Your task to perform on an android device: Open settings Image 0: 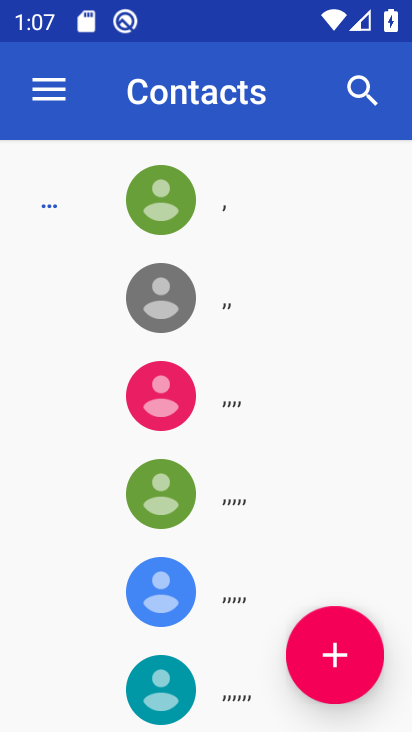
Step 0: press home button
Your task to perform on an android device: Open settings Image 1: 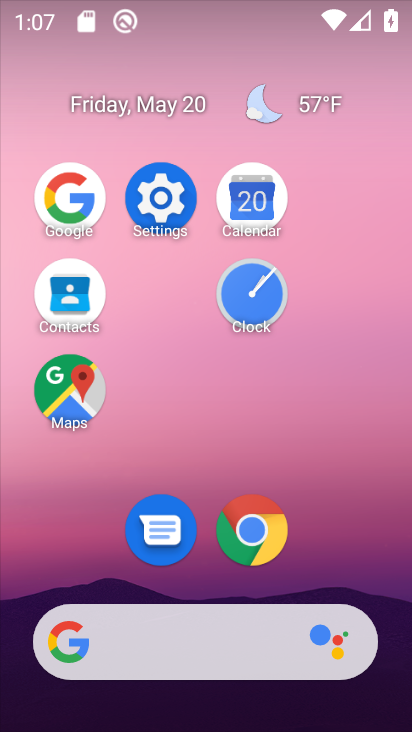
Step 1: click (151, 196)
Your task to perform on an android device: Open settings Image 2: 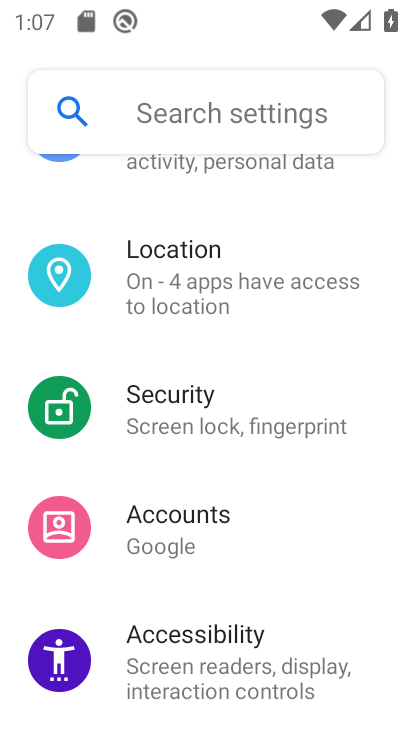
Step 2: task complete